Your task to perform on an android device: Open battery settings Image 0: 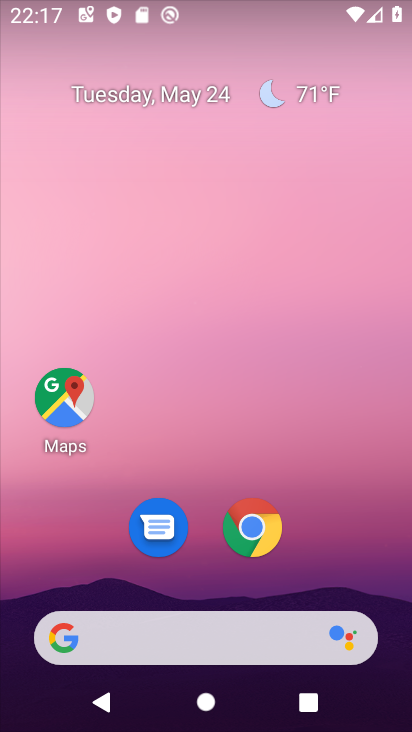
Step 0: drag from (317, 582) to (343, 0)
Your task to perform on an android device: Open battery settings Image 1: 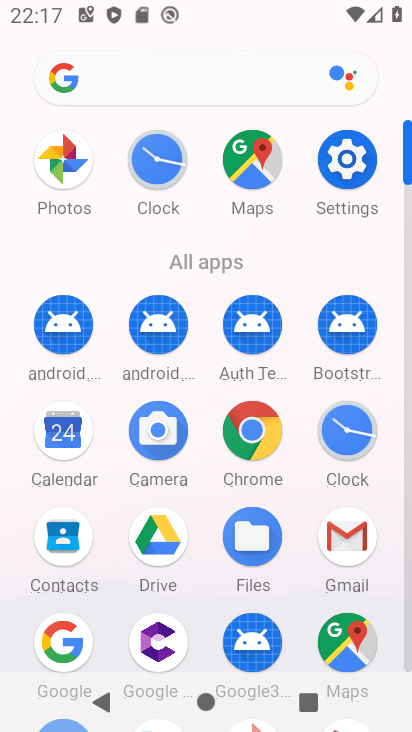
Step 1: click (345, 158)
Your task to perform on an android device: Open battery settings Image 2: 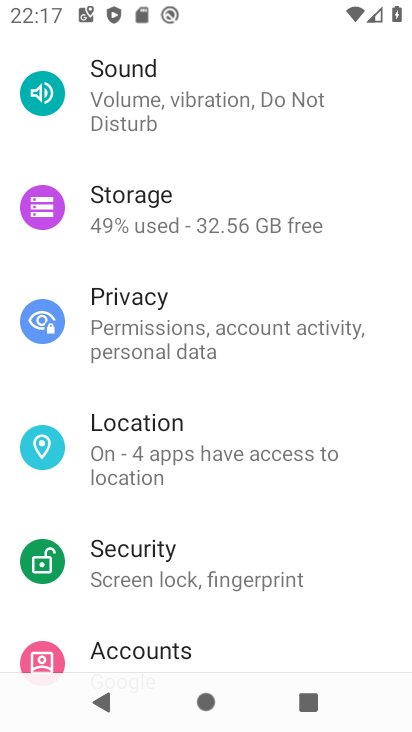
Step 2: drag from (177, 288) to (248, 572)
Your task to perform on an android device: Open battery settings Image 3: 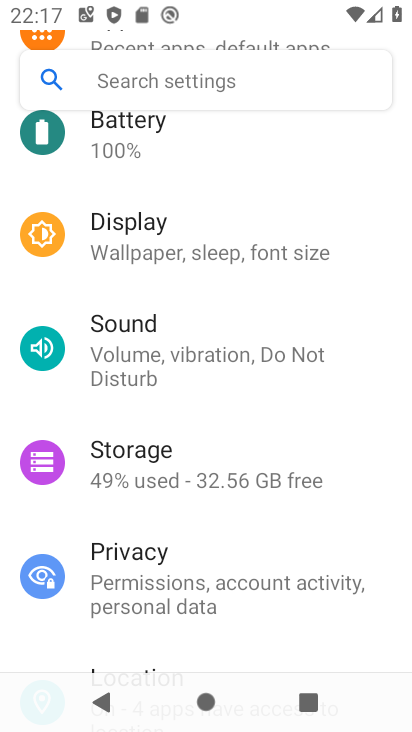
Step 3: click (143, 125)
Your task to perform on an android device: Open battery settings Image 4: 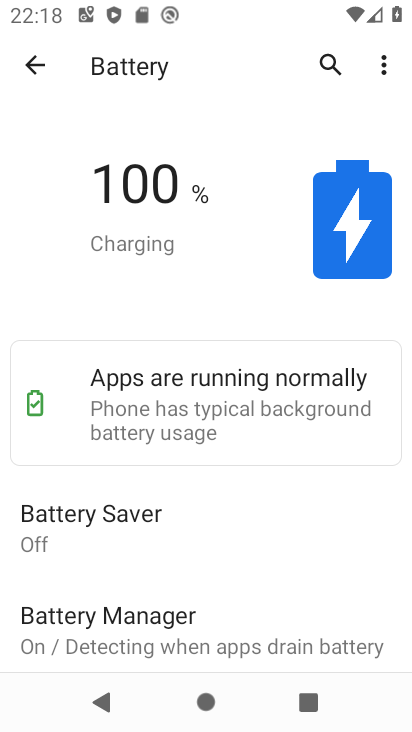
Step 4: task complete